Your task to perform on an android device: add a contact in the contacts app Image 0: 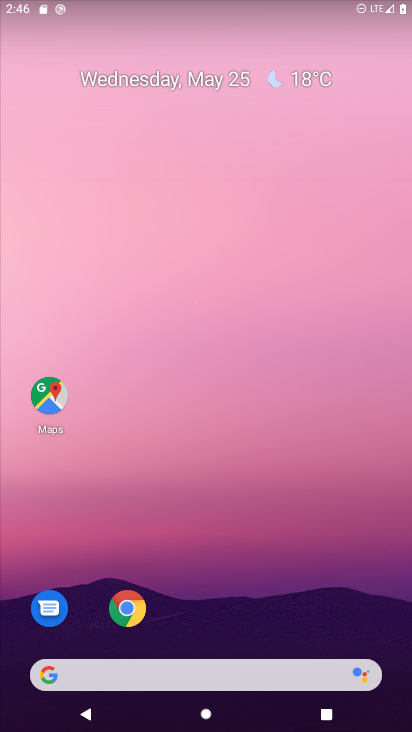
Step 0: drag from (380, 619) to (292, 147)
Your task to perform on an android device: add a contact in the contacts app Image 1: 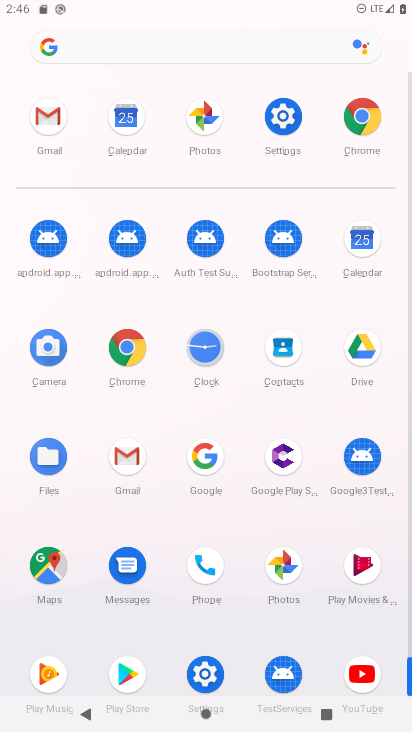
Step 1: click (287, 348)
Your task to perform on an android device: add a contact in the contacts app Image 2: 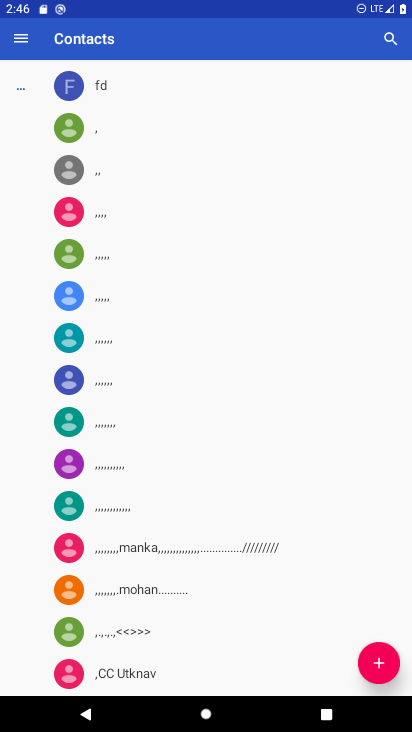
Step 2: click (379, 665)
Your task to perform on an android device: add a contact in the contacts app Image 3: 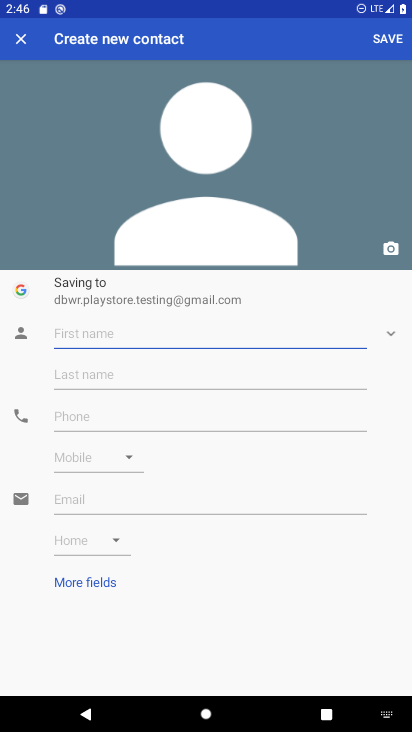
Step 3: type "ffdsdfsg"
Your task to perform on an android device: add a contact in the contacts app Image 4: 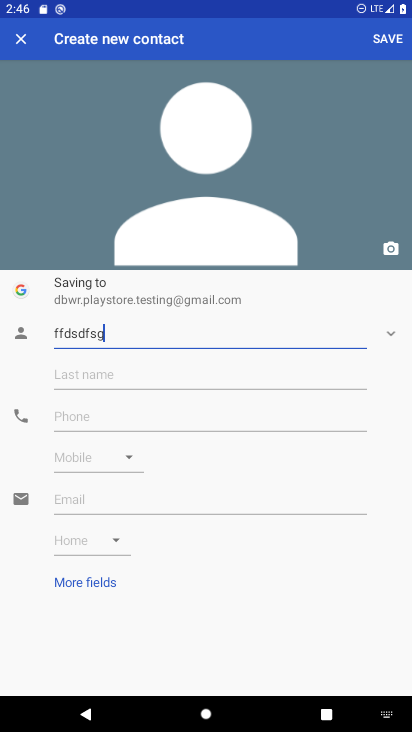
Step 4: click (133, 419)
Your task to perform on an android device: add a contact in the contacts app Image 5: 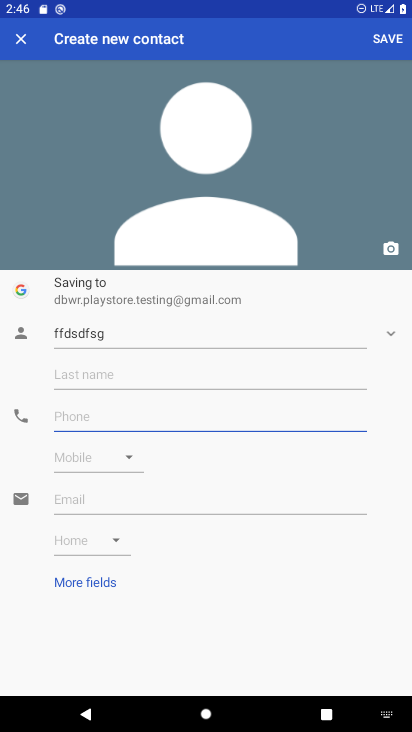
Step 5: click (133, 419)
Your task to perform on an android device: add a contact in the contacts app Image 6: 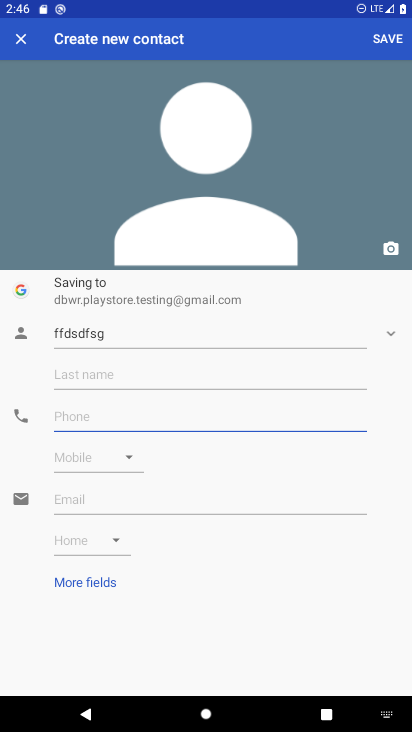
Step 6: type "09765"
Your task to perform on an android device: add a contact in the contacts app Image 7: 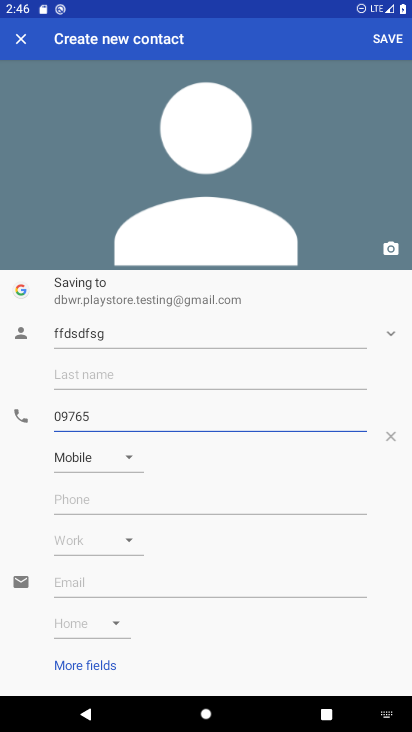
Step 7: click (385, 32)
Your task to perform on an android device: add a contact in the contacts app Image 8: 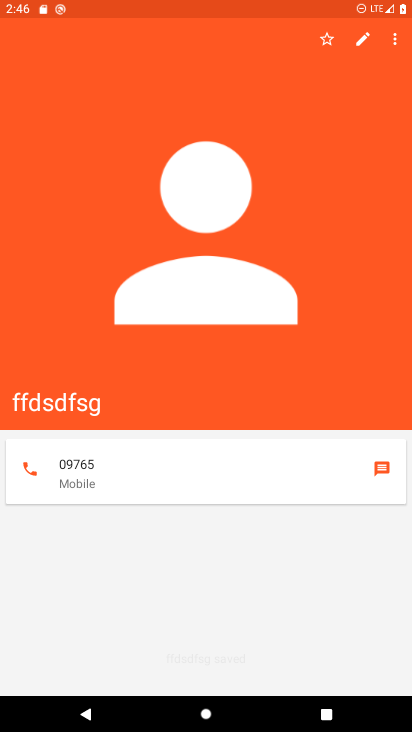
Step 8: task complete